Your task to perform on an android device: Is it going to rain tomorrow? Image 0: 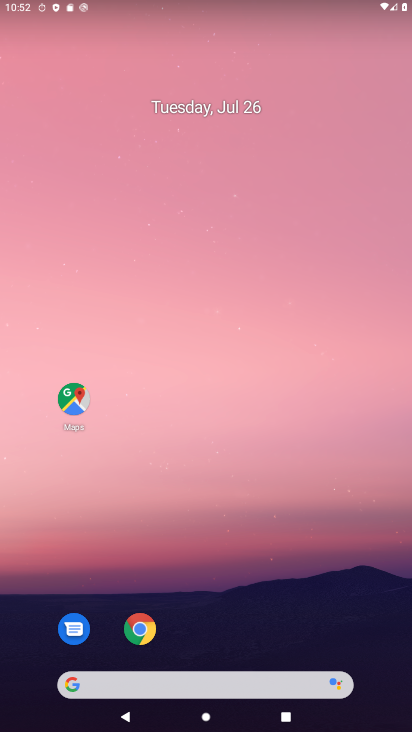
Step 0: drag from (327, 593) to (181, 40)
Your task to perform on an android device: Is it going to rain tomorrow? Image 1: 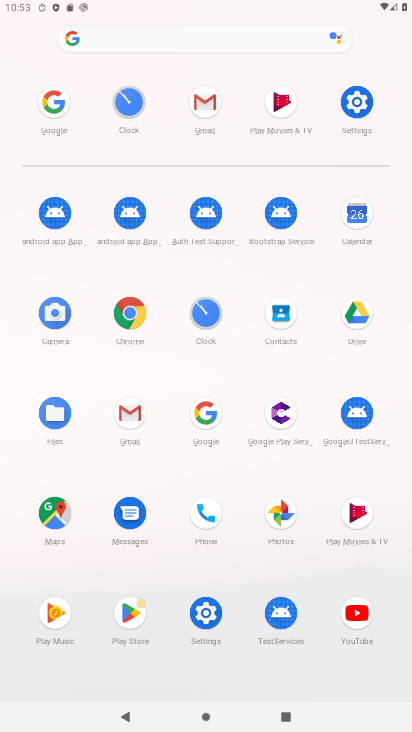
Step 1: click (197, 425)
Your task to perform on an android device: Is it going to rain tomorrow? Image 2: 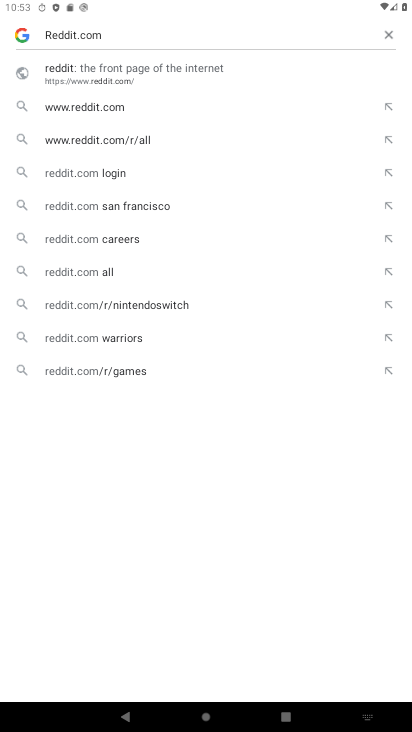
Step 2: click (380, 33)
Your task to perform on an android device: Is it going to rain tomorrow? Image 3: 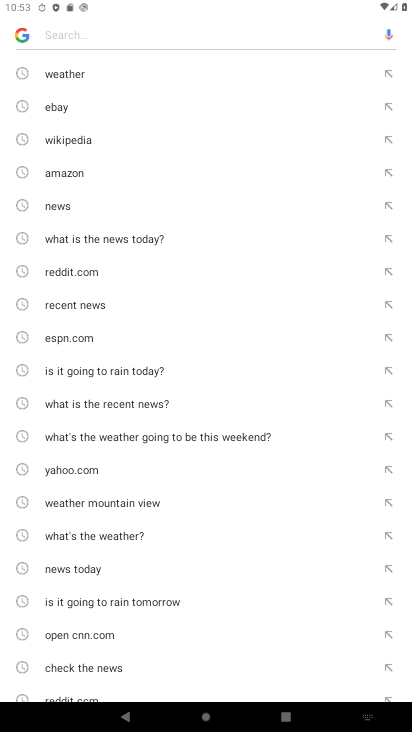
Step 3: click (116, 612)
Your task to perform on an android device: Is it going to rain tomorrow? Image 4: 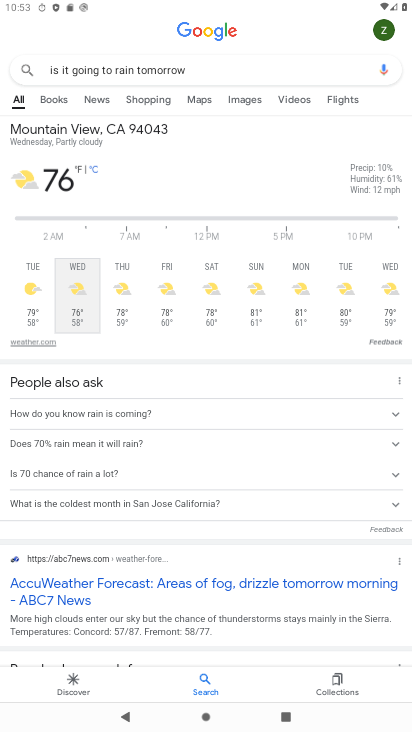
Step 4: task complete